Your task to perform on an android device: Go to Amazon Image 0: 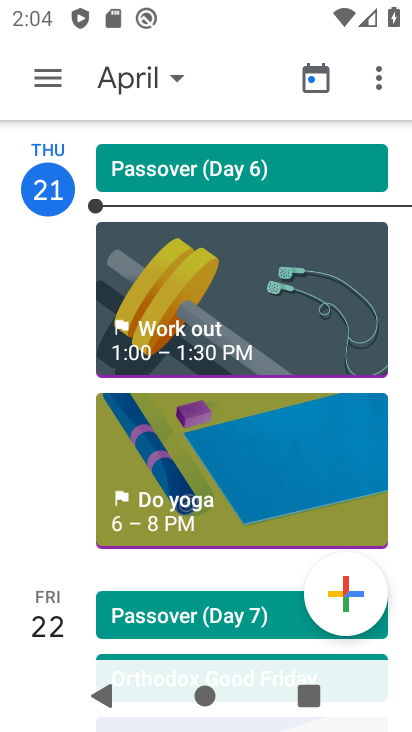
Step 0: press back button
Your task to perform on an android device: Go to Amazon Image 1: 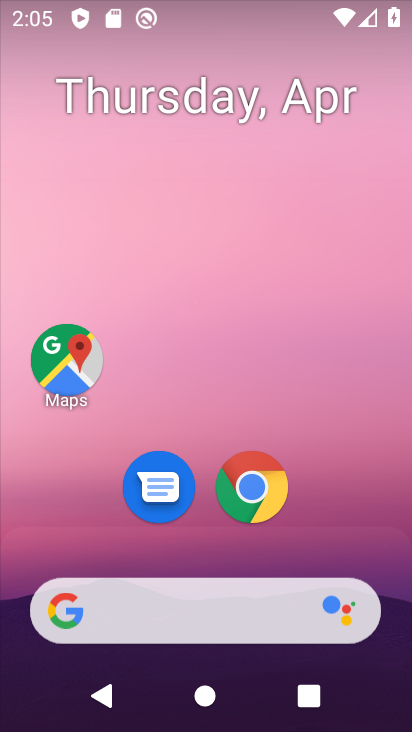
Step 1: drag from (195, 488) to (257, 98)
Your task to perform on an android device: Go to Amazon Image 2: 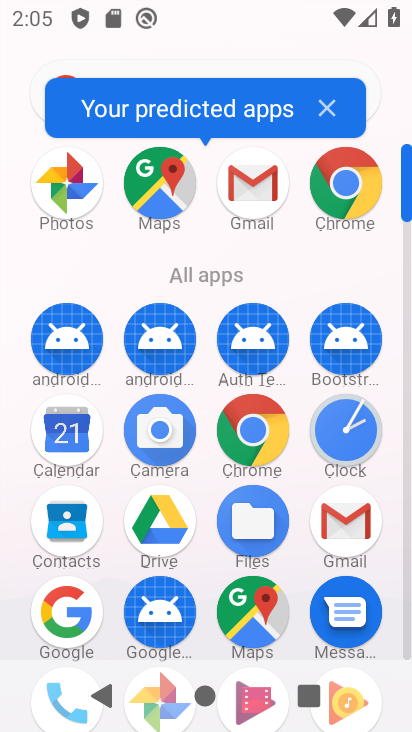
Step 2: click (262, 440)
Your task to perform on an android device: Go to Amazon Image 3: 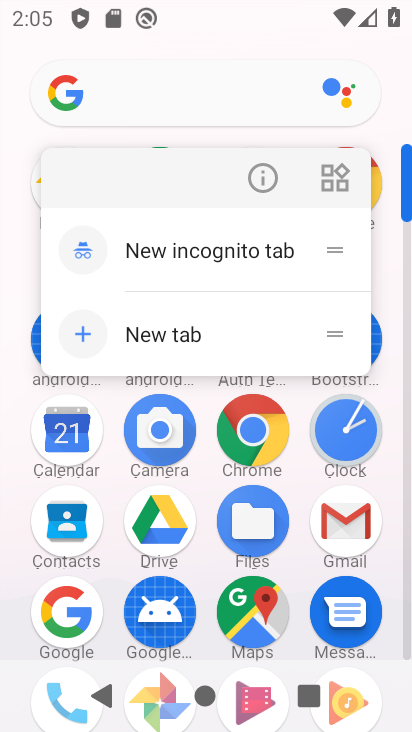
Step 3: click (256, 432)
Your task to perform on an android device: Go to Amazon Image 4: 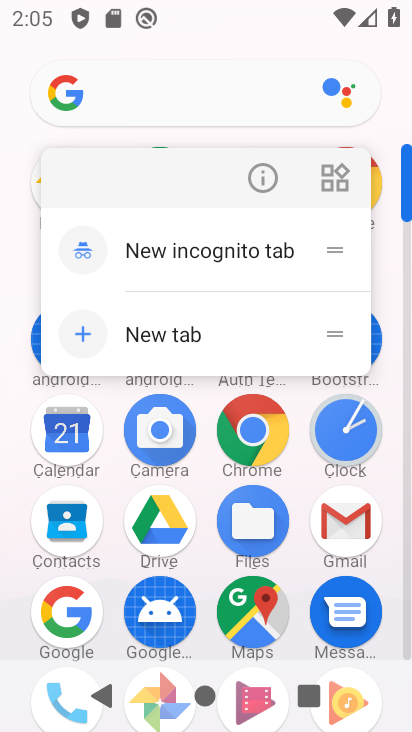
Step 4: click (255, 436)
Your task to perform on an android device: Go to Amazon Image 5: 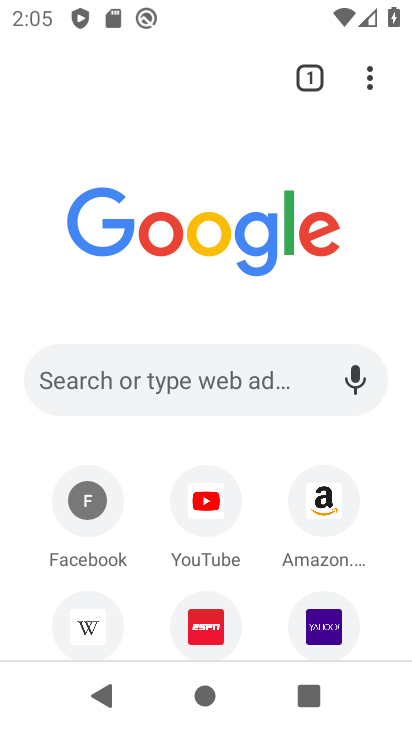
Step 5: click (330, 509)
Your task to perform on an android device: Go to Amazon Image 6: 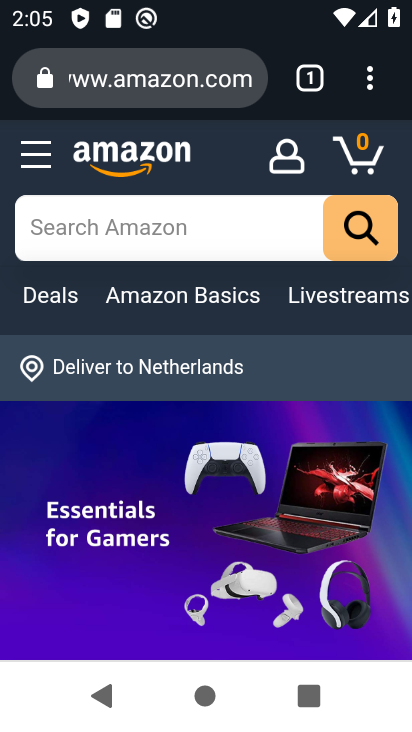
Step 6: task complete